Your task to perform on an android device: toggle javascript in the chrome app Image 0: 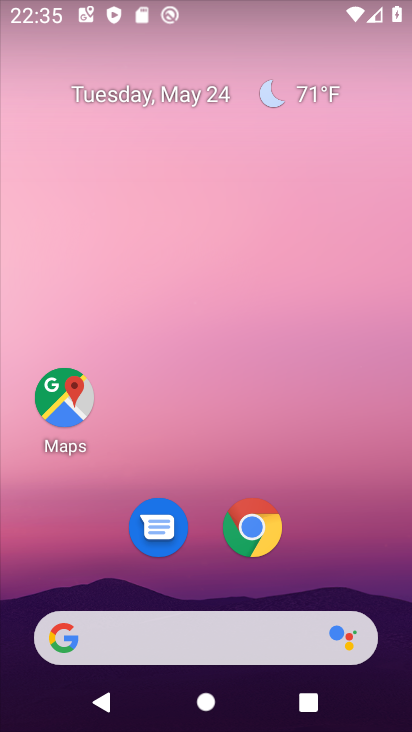
Step 0: click (253, 526)
Your task to perform on an android device: toggle javascript in the chrome app Image 1: 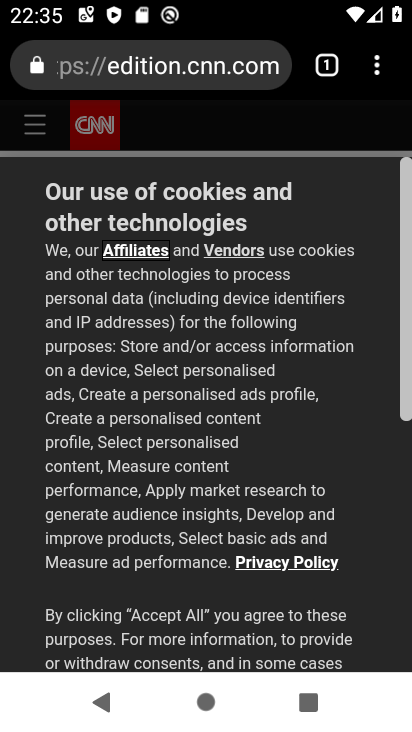
Step 1: click (374, 70)
Your task to perform on an android device: toggle javascript in the chrome app Image 2: 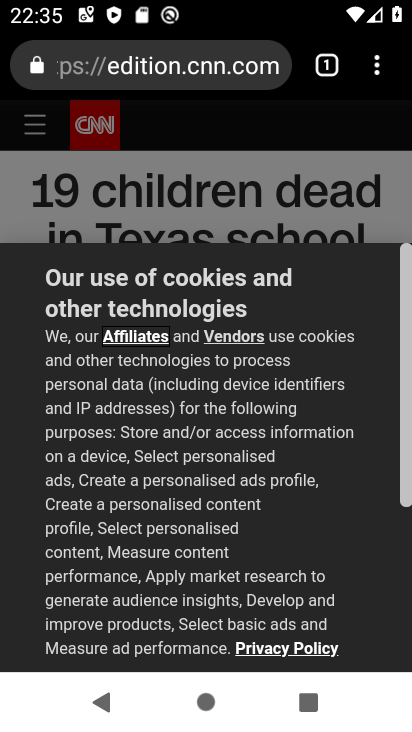
Step 2: click (377, 53)
Your task to perform on an android device: toggle javascript in the chrome app Image 3: 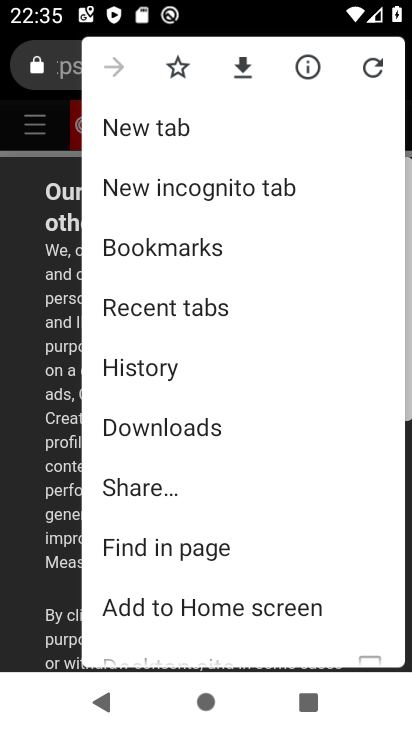
Step 3: drag from (224, 588) to (216, 151)
Your task to perform on an android device: toggle javascript in the chrome app Image 4: 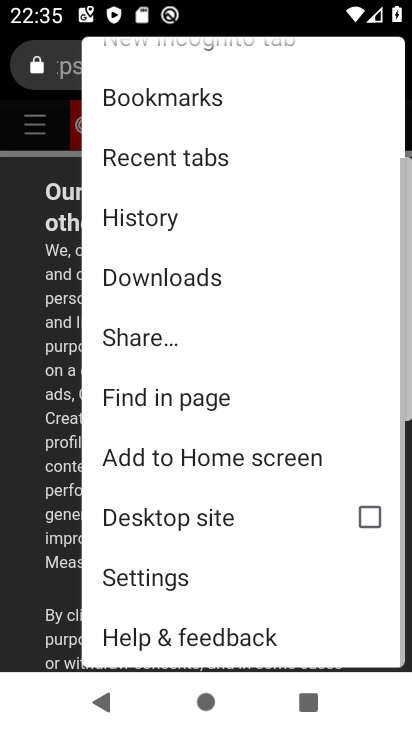
Step 4: click (180, 573)
Your task to perform on an android device: toggle javascript in the chrome app Image 5: 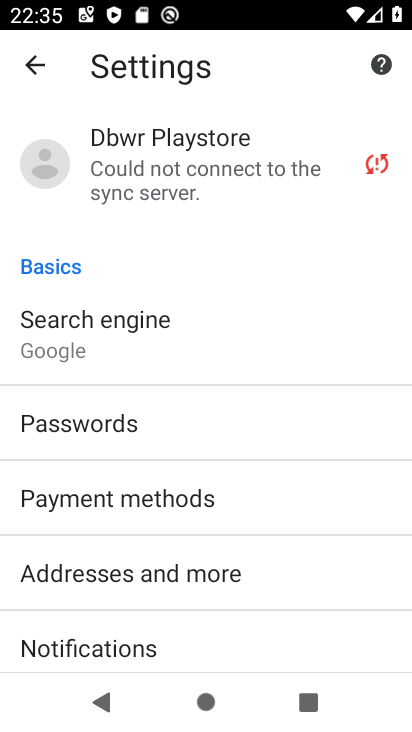
Step 5: drag from (172, 666) to (203, 319)
Your task to perform on an android device: toggle javascript in the chrome app Image 6: 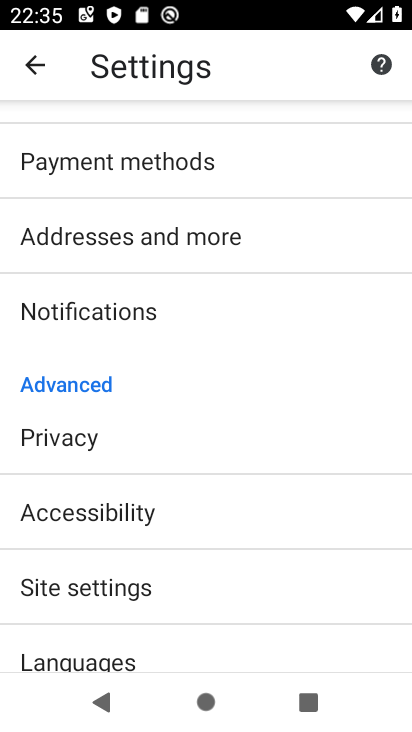
Step 6: click (143, 592)
Your task to perform on an android device: toggle javascript in the chrome app Image 7: 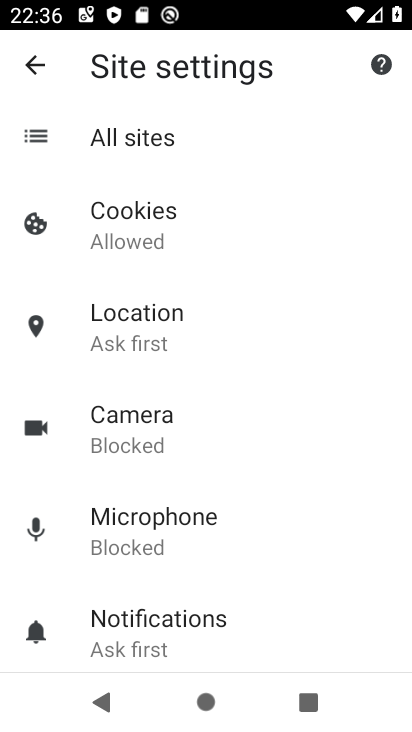
Step 7: drag from (212, 633) to (248, 265)
Your task to perform on an android device: toggle javascript in the chrome app Image 8: 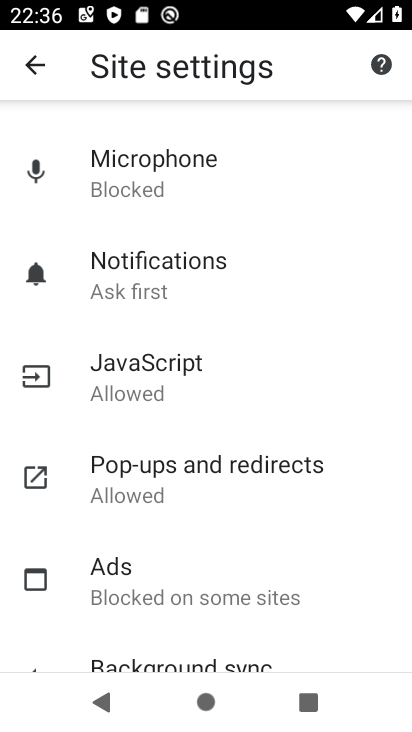
Step 8: click (217, 358)
Your task to perform on an android device: toggle javascript in the chrome app Image 9: 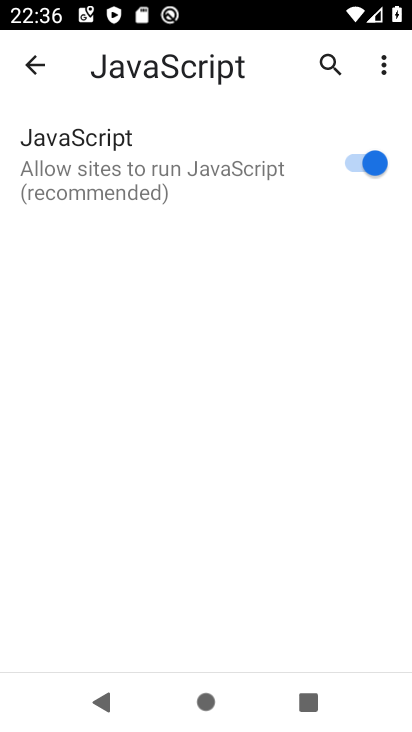
Step 9: click (382, 182)
Your task to perform on an android device: toggle javascript in the chrome app Image 10: 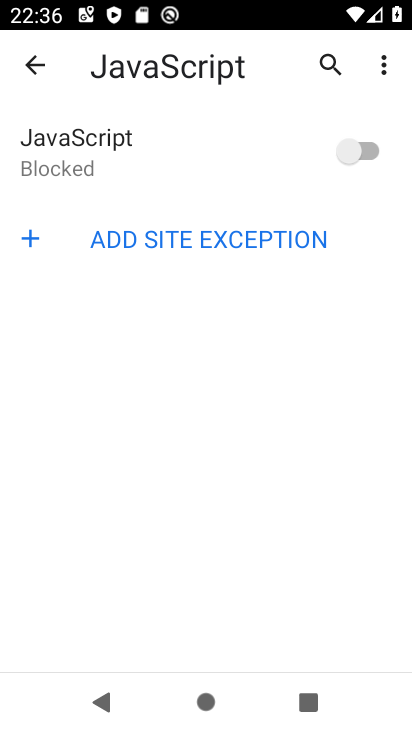
Step 10: task complete